Your task to perform on an android device: Add "asus rog" to the cart on walmart.com Image 0: 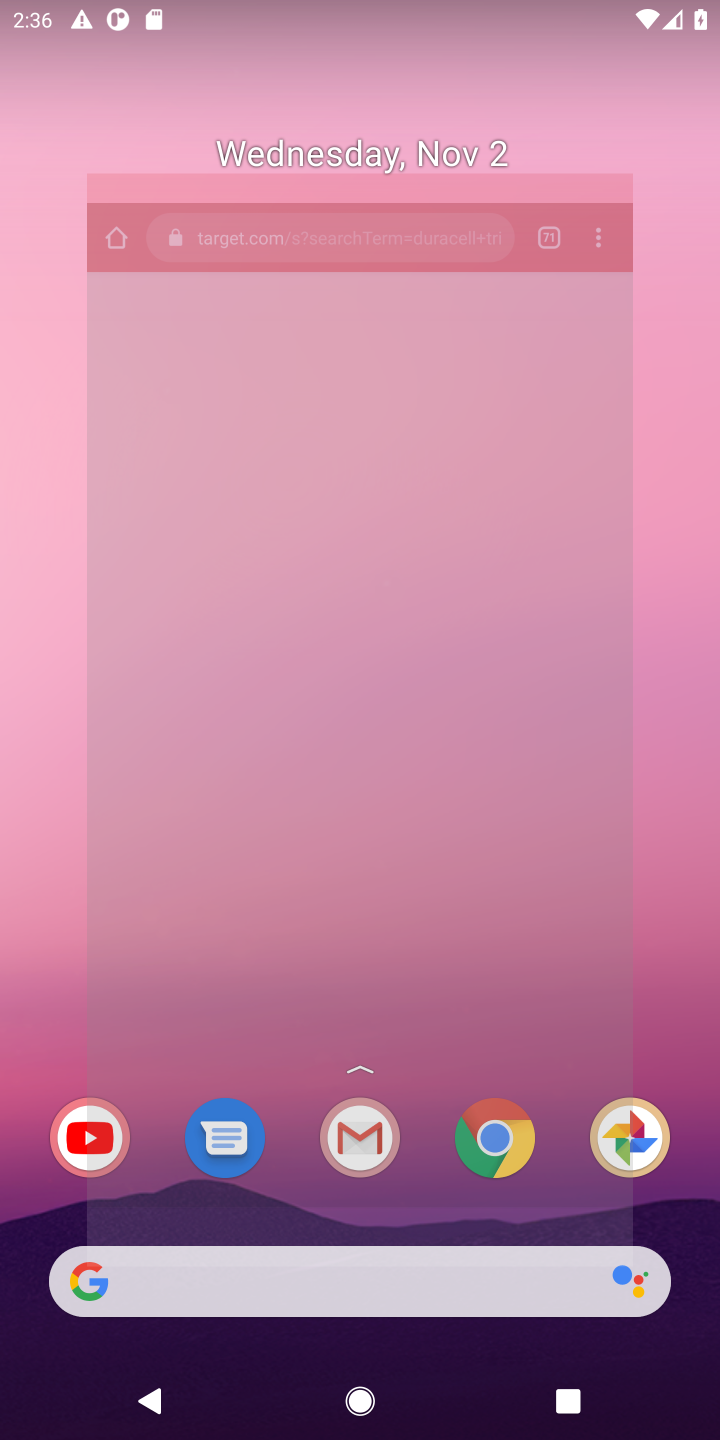
Step 0: press home button
Your task to perform on an android device: Add "asus rog" to the cart on walmart.com Image 1: 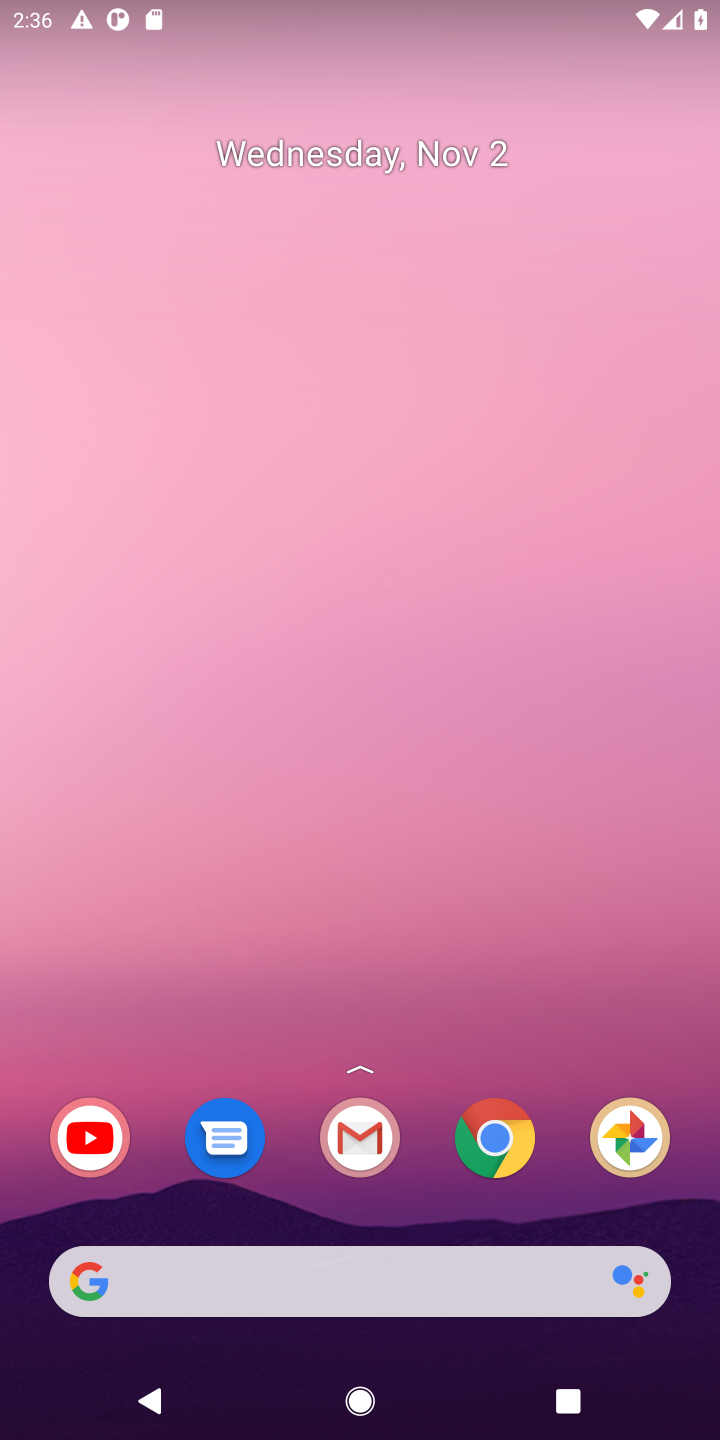
Step 1: press home button
Your task to perform on an android device: Add "asus rog" to the cart on walmart.com Image 2: 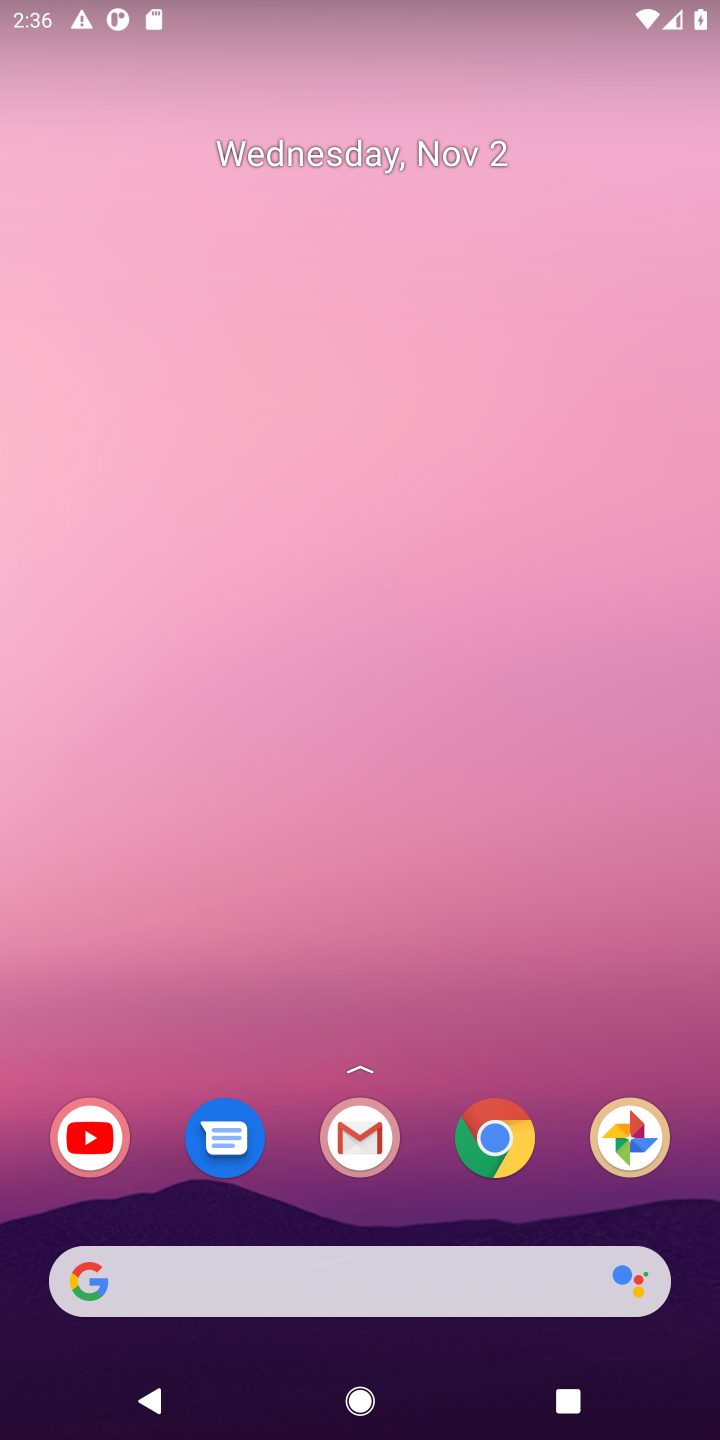
Step 2: click (154, 1273)
Your task to perform on an android device: Add "asus rog" to the cart on walmart.com Image 3: 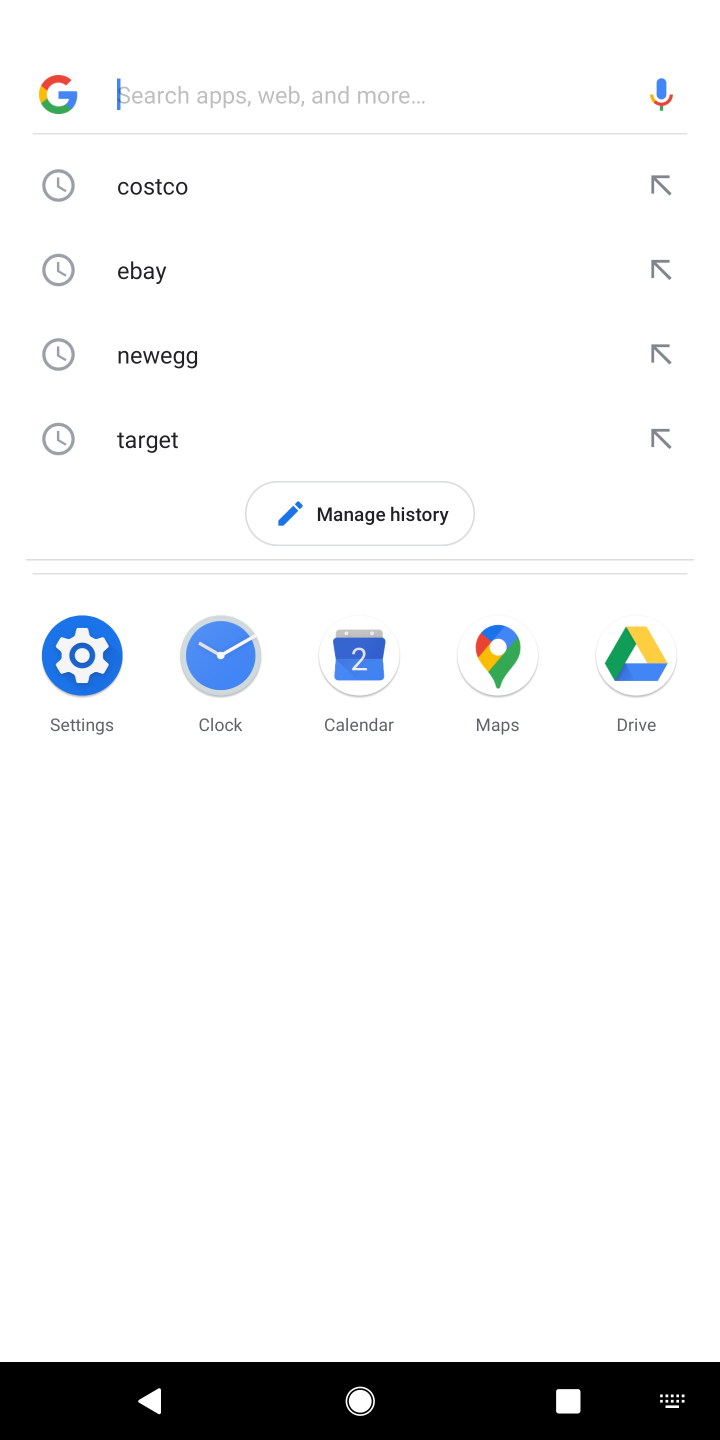
Step 3: press enter
Your task to perform on an android device: Add "asus rog" to the cart on walmart.com Image 4: 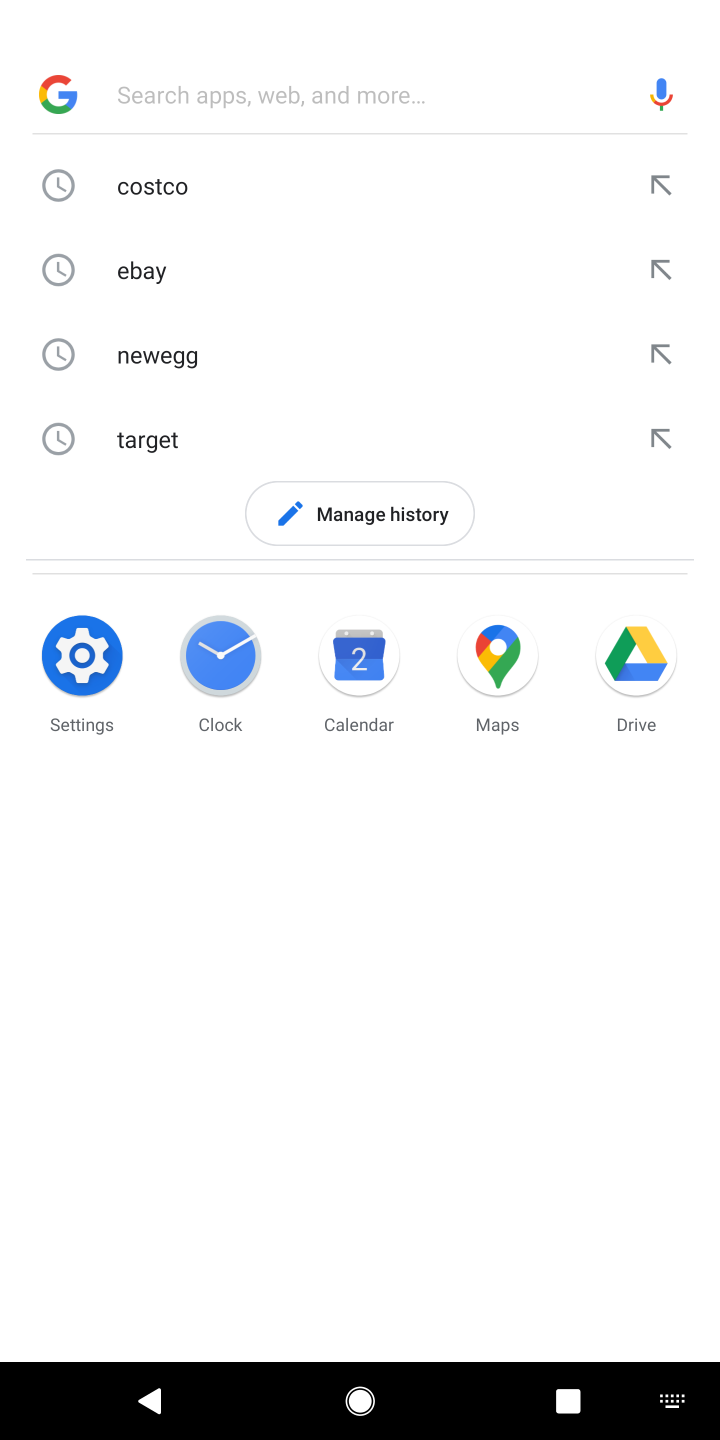
Step 4: type "walmart.com"
Your task to perform on an android device: Add "asus rog" to the cart on walmart.com Image 5: 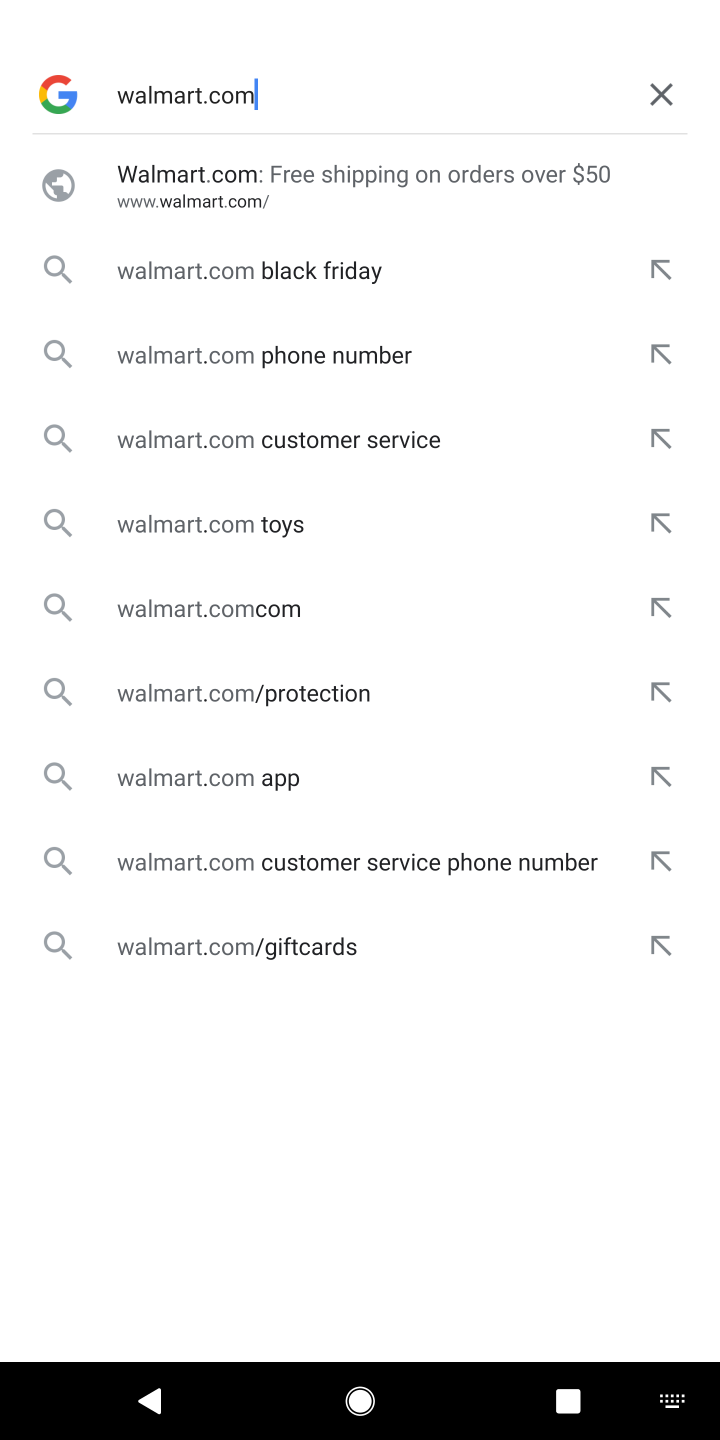
Step 5: press enter
Your task to perform on an android device: Add "asus rog" to the cart on walmart.com Image 6: 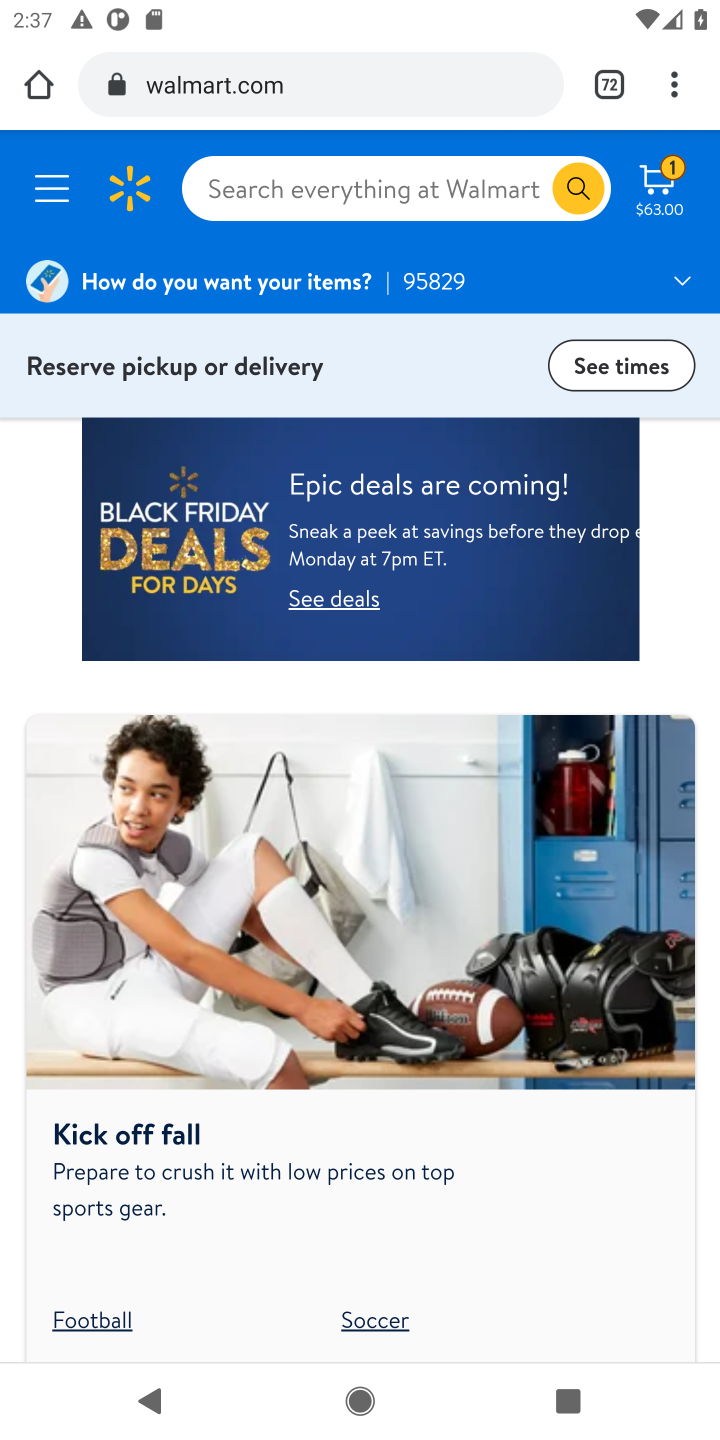
Step 6: click (280, 186)
Your task to perform on an android device: Add "asus rog" to the cart on walmart.com Image 7: 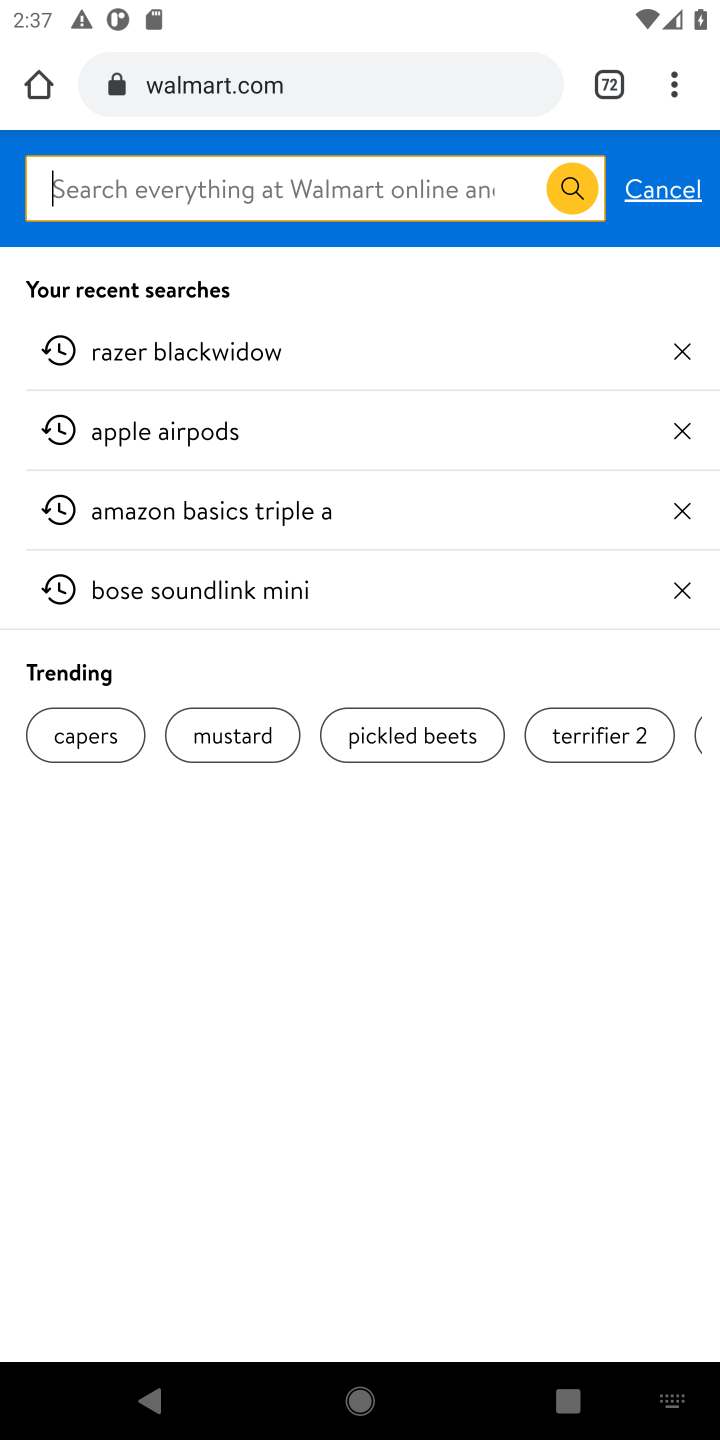
Step 7: type "asus rog"
Your task to perform on an android device: Add "asus rog" to the cart on walmart.com Image 8: 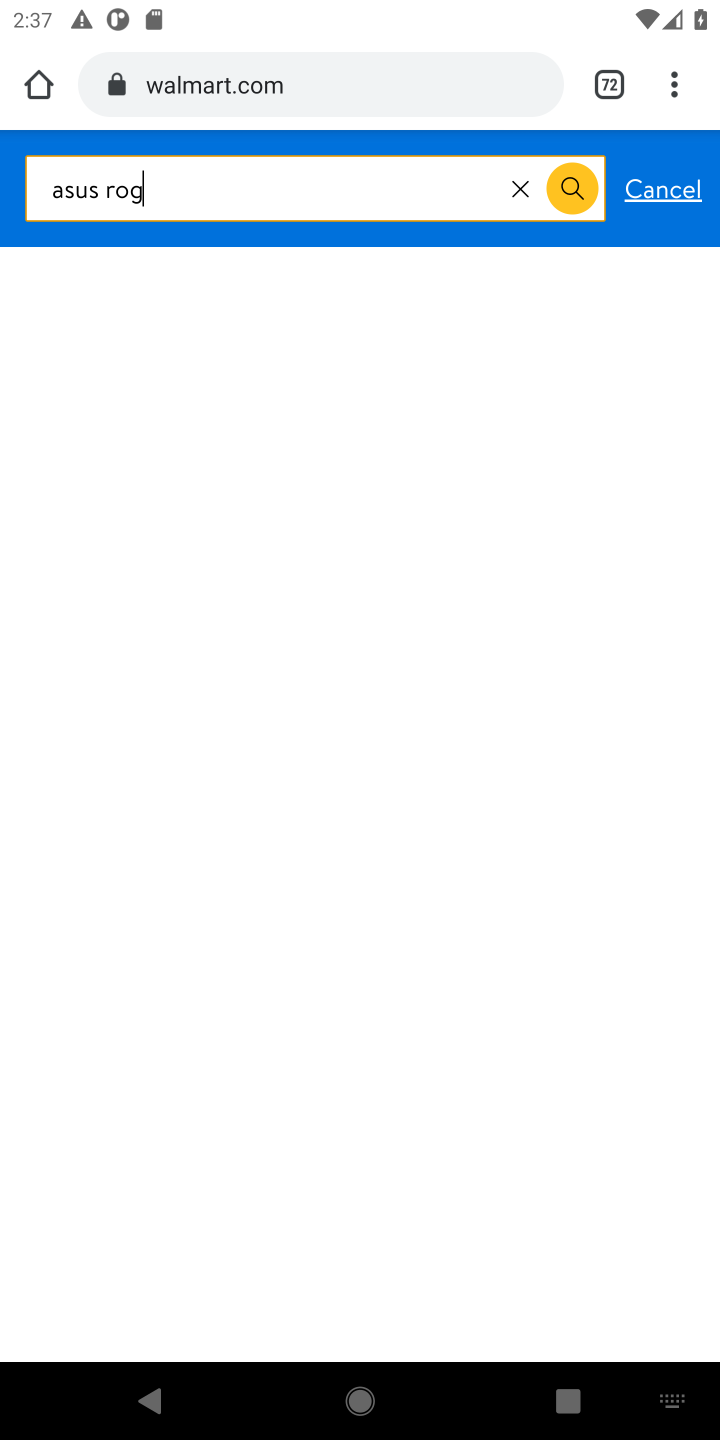
Step 8: press enter
Your task to perform on an android device: Add "asus rog" to the cart on walmart.com Image 9: 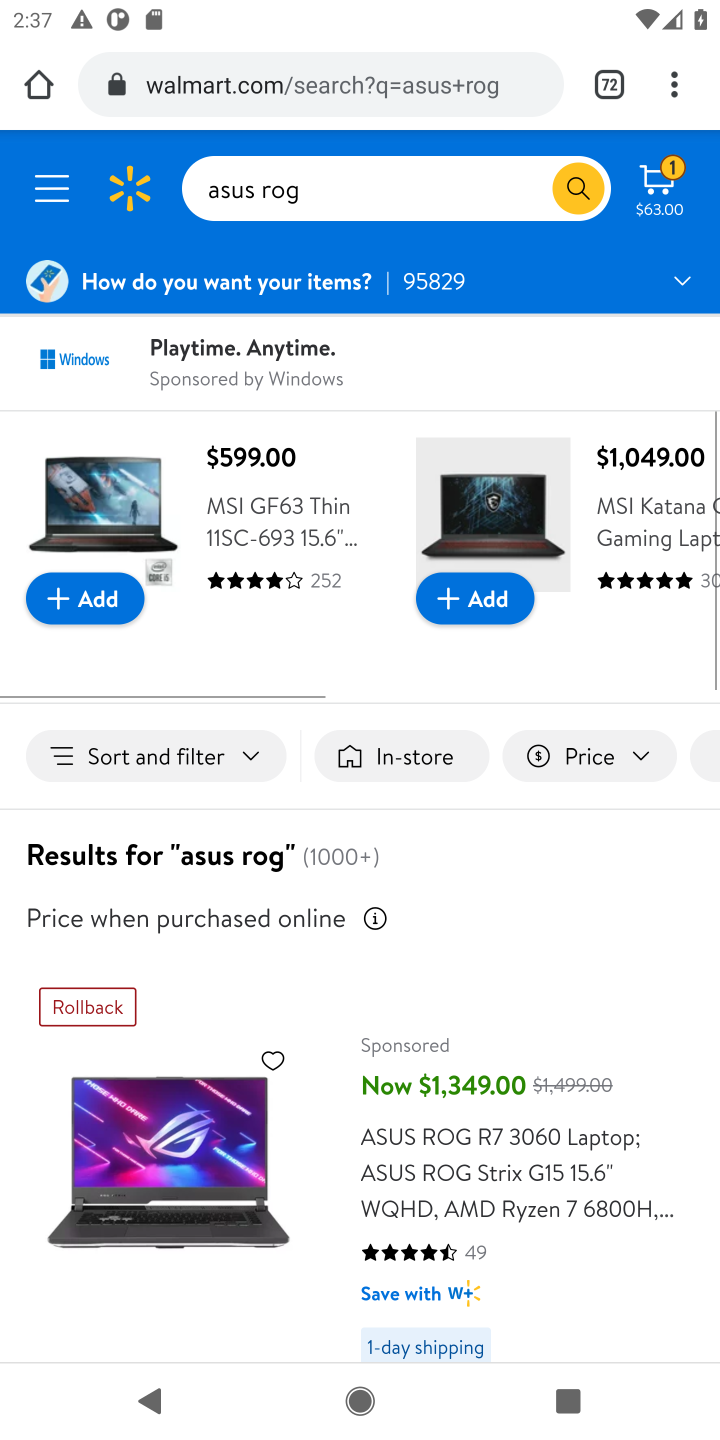
Step 9: drag from (511, 1182) to (568, 731)
Your task to perform on an android device: Add "asus rog" to the cart on walmart.com Image 10: 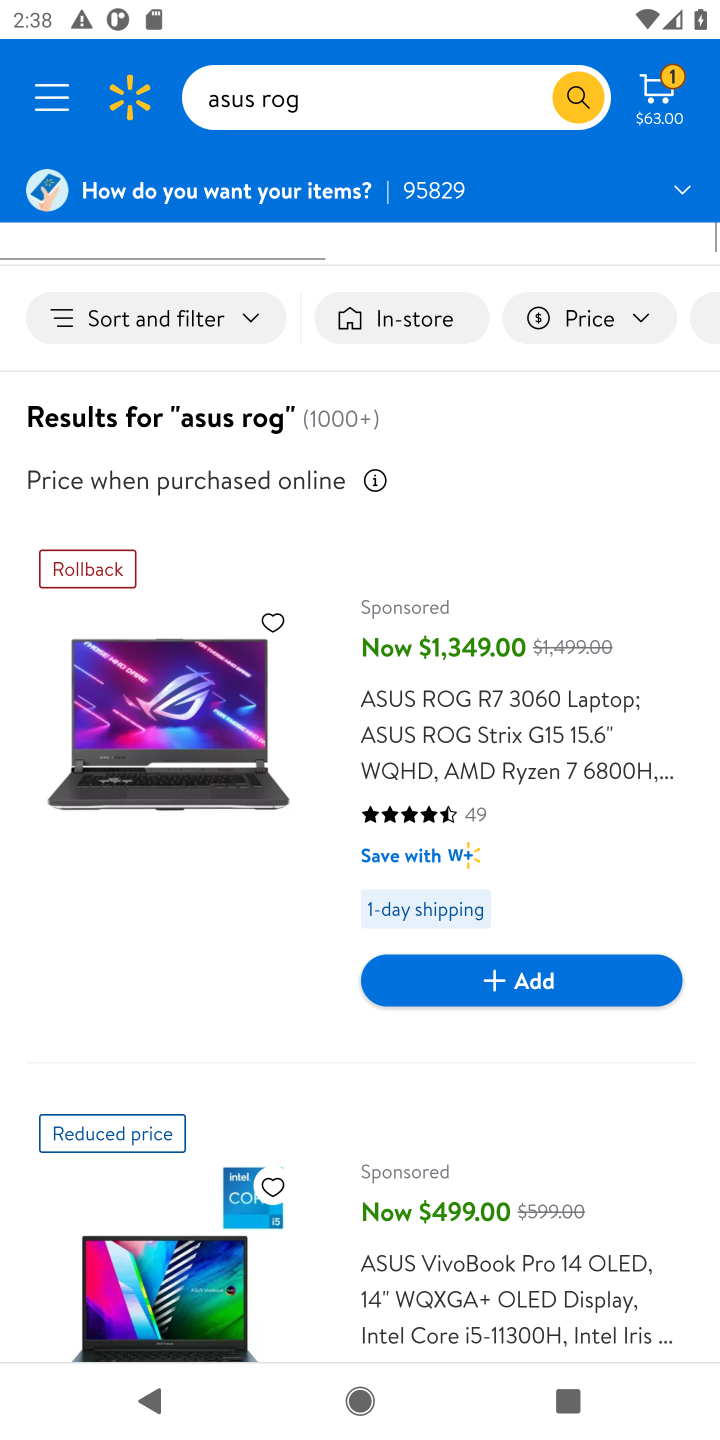
Step 10: click (524, 980)
Your task to perform on an android device: Add "asus rog" to the cart on walmart.com Image 11: 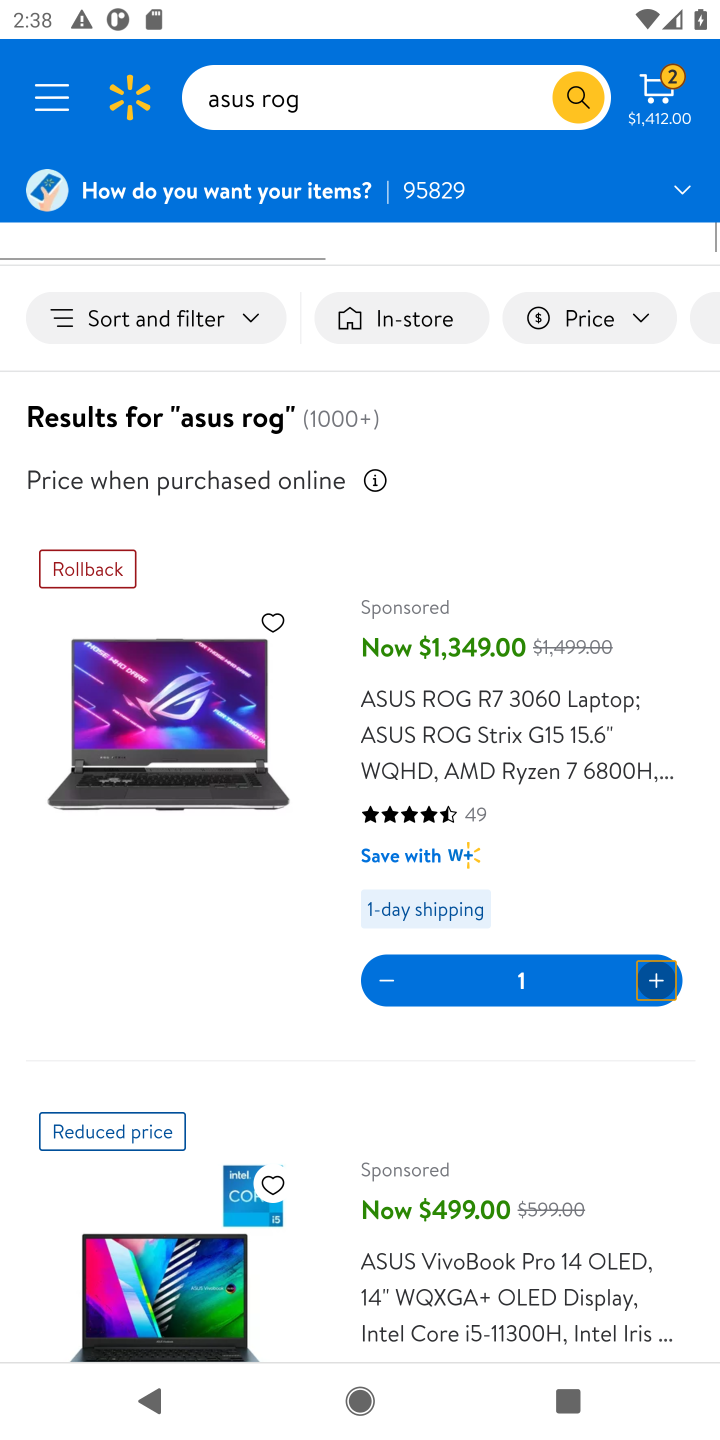
Step 11: task complete